Your task to perform on an android device: toggle show notifications on the lock screen Image 0: 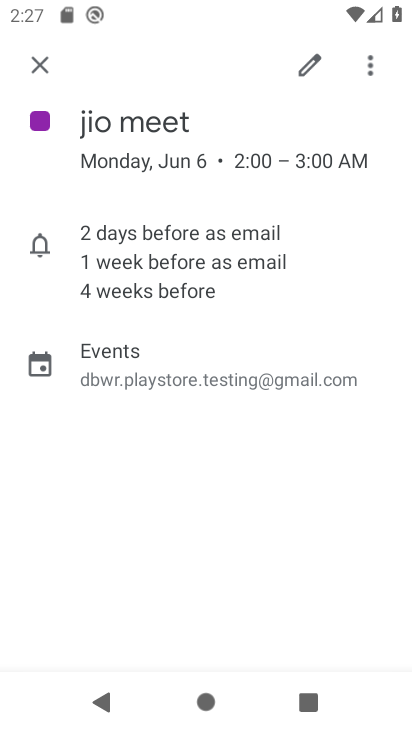
Step 0: press home button
Your task to perform on an android device: toggle show notifications on the lock screen Image 1: 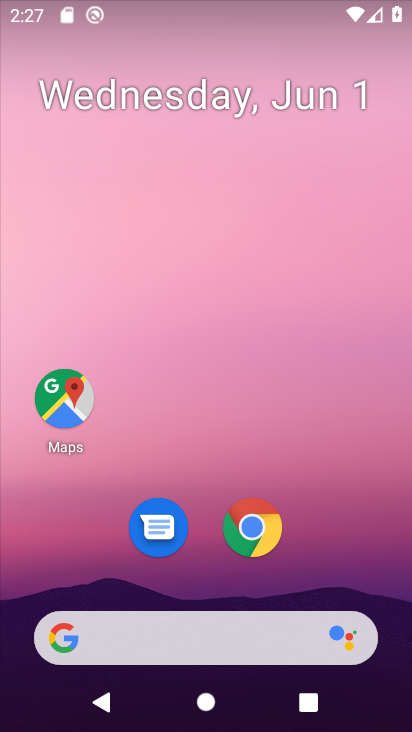
Step 1: drag from (199, 574) to (253, 281)
Your task to perform on an android device: toggle show notifications on the lock screen Image 2: 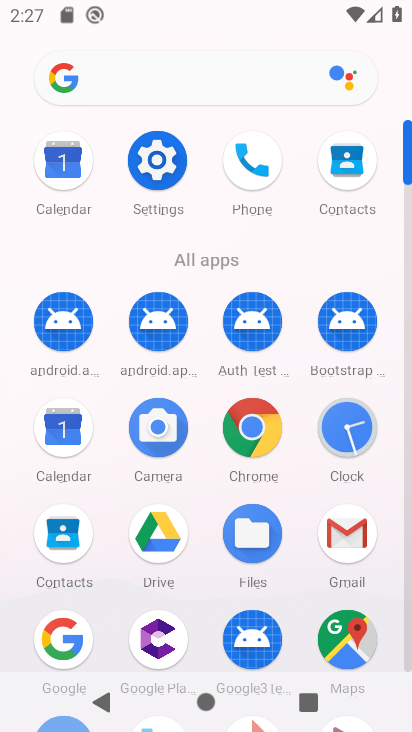
Step 2: click (156, 183)
Your task to perform on an android device: toggle show notifications on the lock screen Image 3: 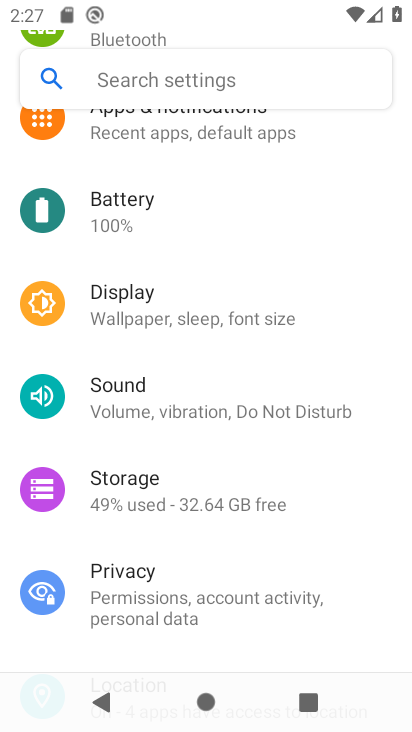
Step 3: drag from (192, 215) to (227, 546)
Your task to perform on an android device: toggle show notifications on the lock screen Image 4: 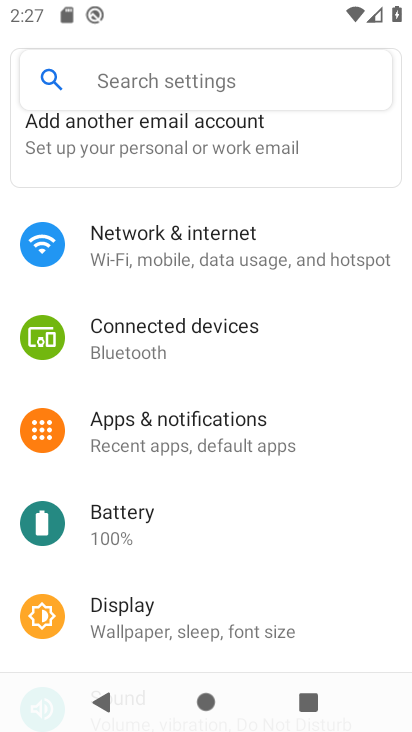
Step 4: click (217, 420)
Your task to perform on an android device: toggle show notifications on the lock screen Image 5: 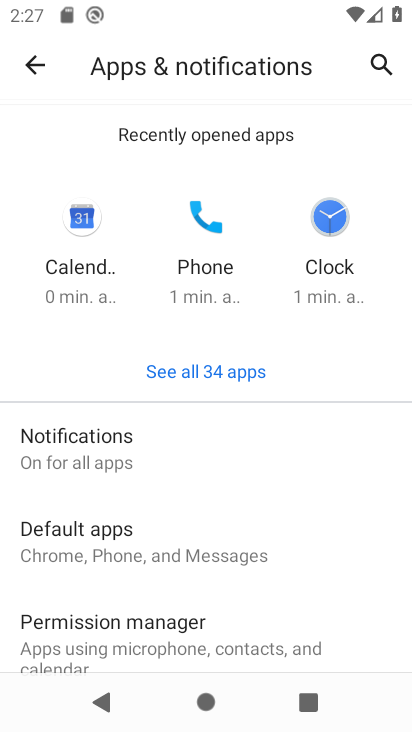
Step 5: click (136, 459)
Your task to perform on an android device: toggle show notifications on the lock screen Image 6: 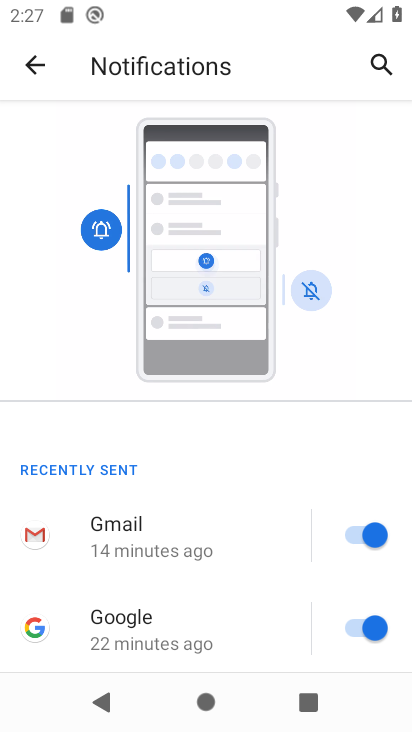
Step 6: drag from (191, 610) to (195, 309)
Your task to perform on an android device: toggle show notifications on the lock screen Image 7: 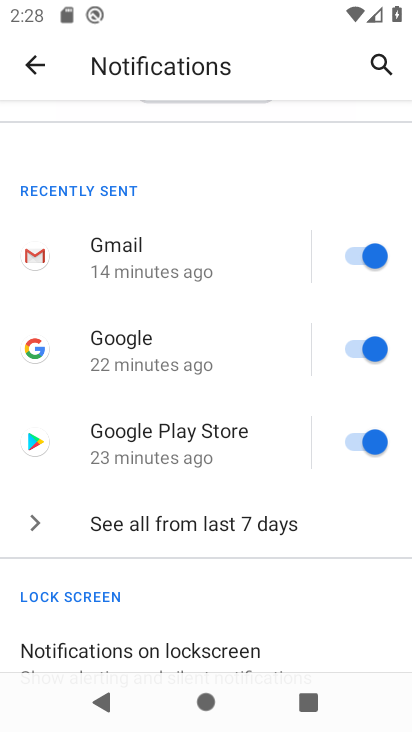
Step 7: drag from (153, 618) to (187, 268)
Your task to perform on an android device: toggle show notifications on the lock screen Image 8: 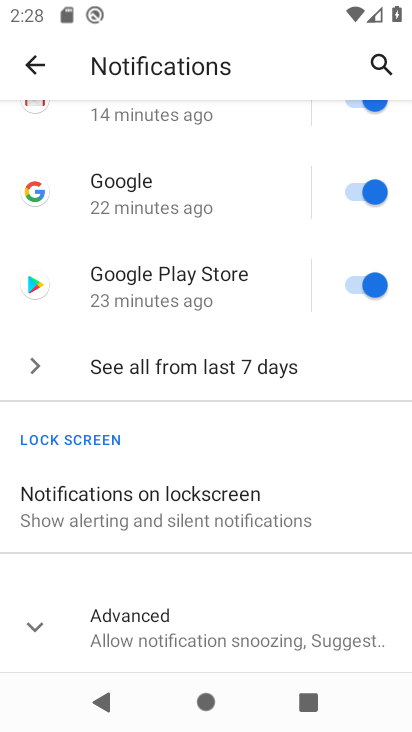
Step 8: click (134, 520)
Your task to perform on an android device: toggle show notifications on the lock screen Image 9: 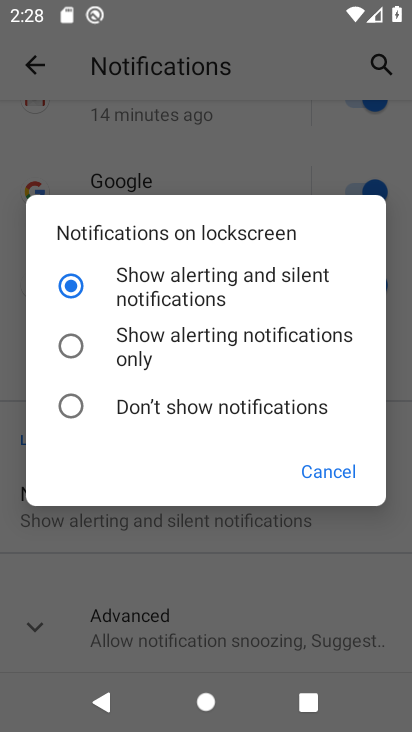
Step 9: click (83, 406)
Your task to perform on an android device: toggle show notifications on the lock screen Image 10: 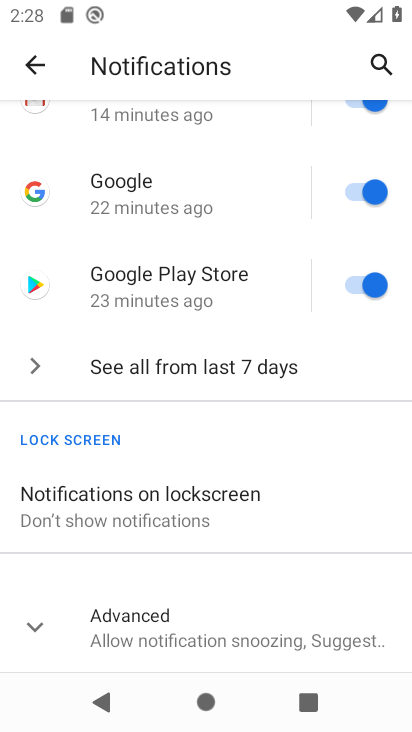
Step 10: task complete